Your task to perform on an android device: What's the weather going to be tomorrow? Image 0: 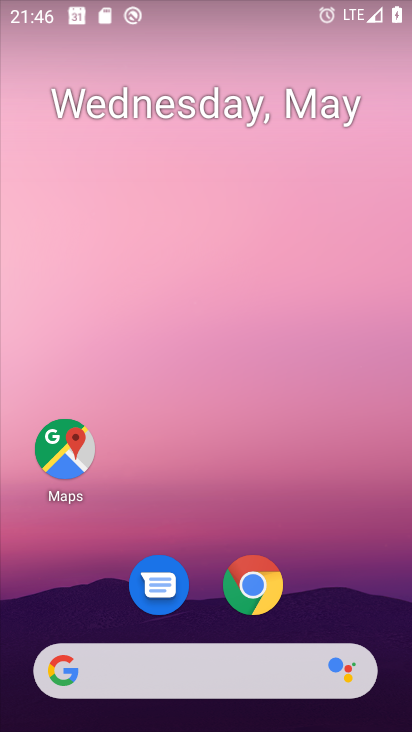
Step 0: click (265, 666)
Your task to perform on an android device: What's the weather going to be tomorrow? Image 1: 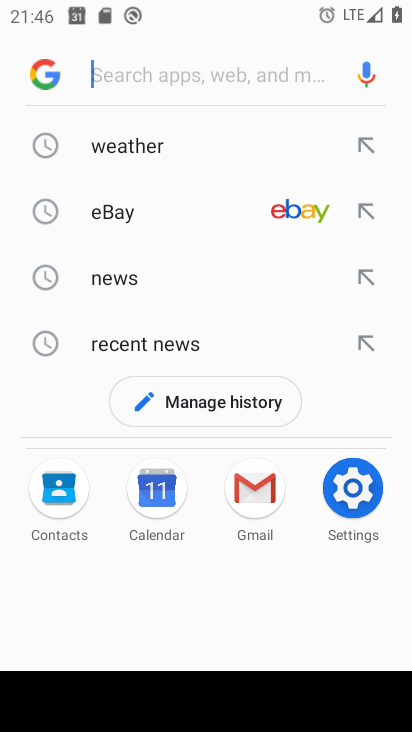
Step 1: click (132, 143)
Your task to perform on an android device: What's the weather going to be tomorrow? Image 2: 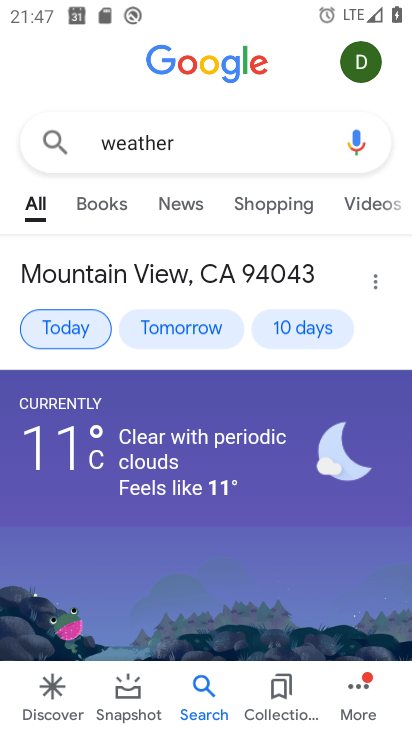
Step 2: click (56, 320)
Your task to perform on an android device: What's the weather going to be tomorrow? Image 3: 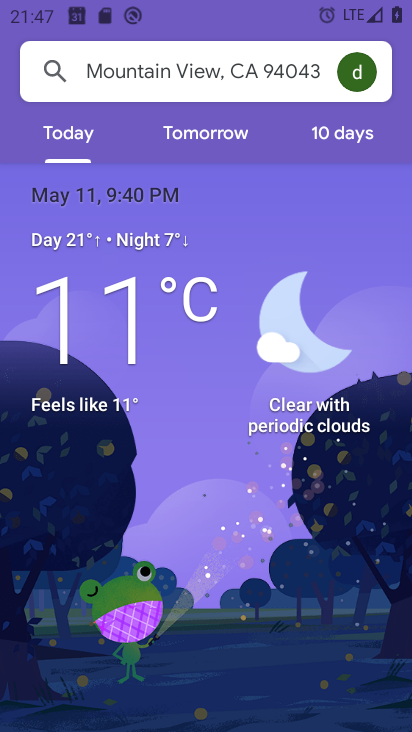
Step 3: task complete